Your task to perform on an android device: Open the map Image 0: 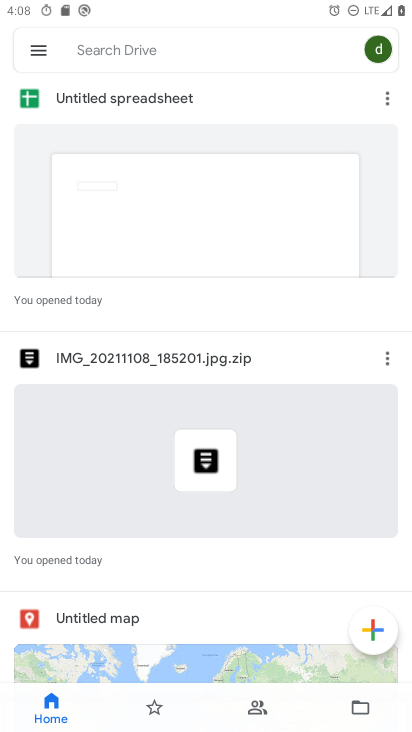
Step 0: press home button
Your task to perform on an android device: Open the map Image 1: 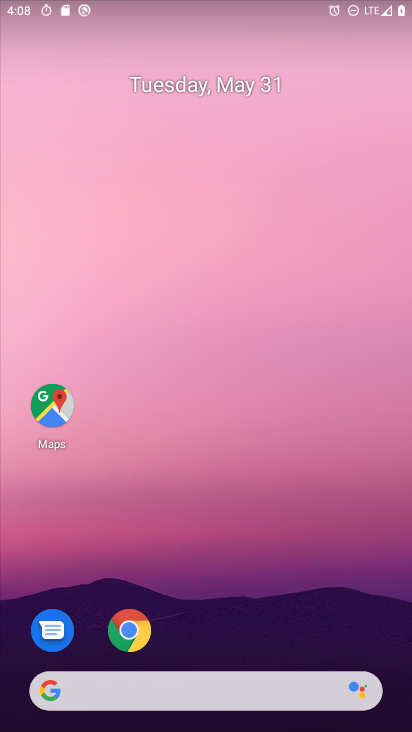
Step 1: drag from (218, 699) to (188, 67)
Your task to perform on an android device: Open the map Image 2: 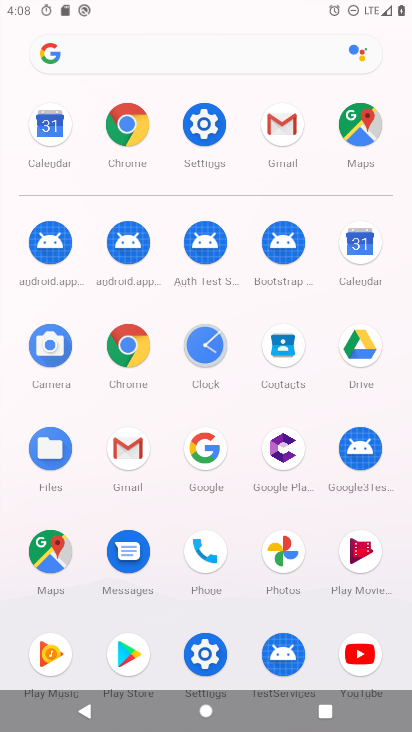
Step 2: click (48, 557)
Your task to perform on an android device: Open the map Image 3: 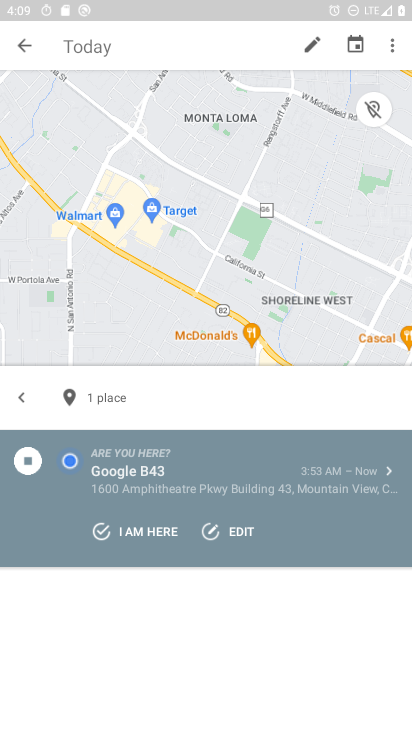
Step 3: task complete